Your task to perform on an android device: empty trash in google photos Image 0: 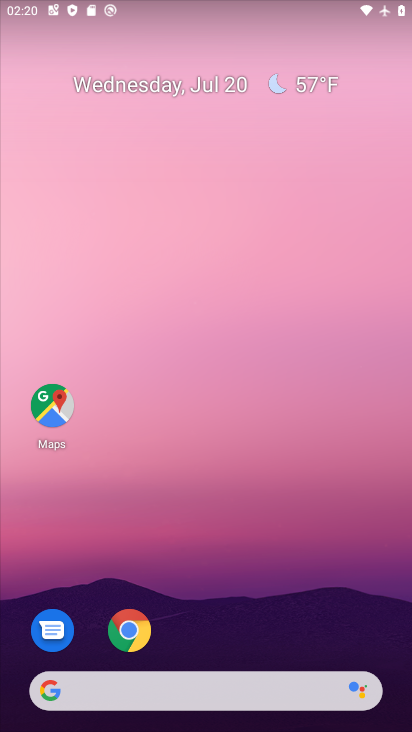
Step 0: drag from (200, 609) to (206, 200)
Your task to perform on an android device: empty trash in google photos Image 1: 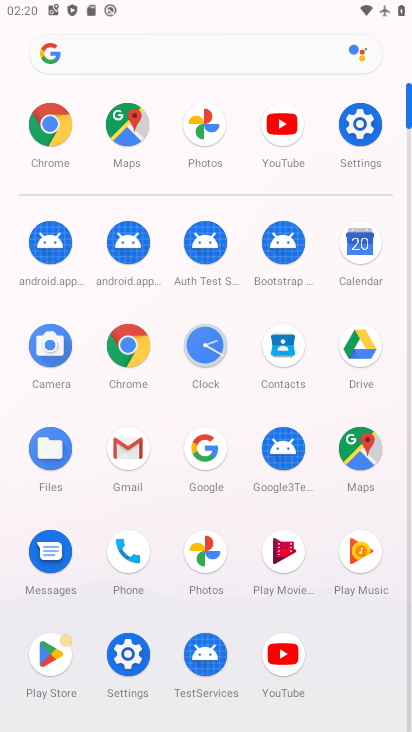
Step 1: click (220, 120)
Your task to perform on an android device: empty trash in google photos Image 2: 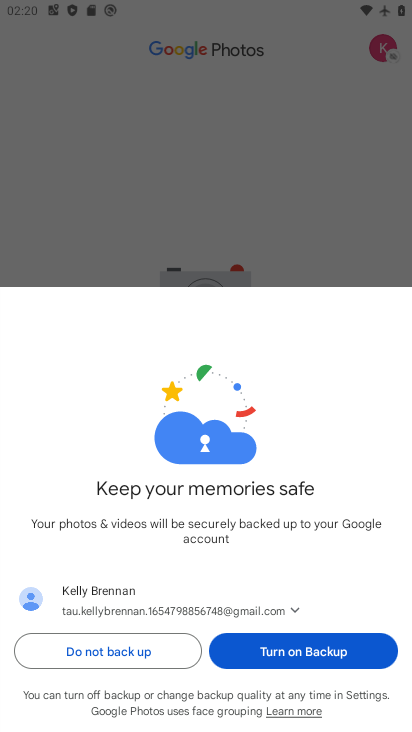
Step 2: click (304, 656)
Your task to perform on an android device: empty trash in google photos Image 3: 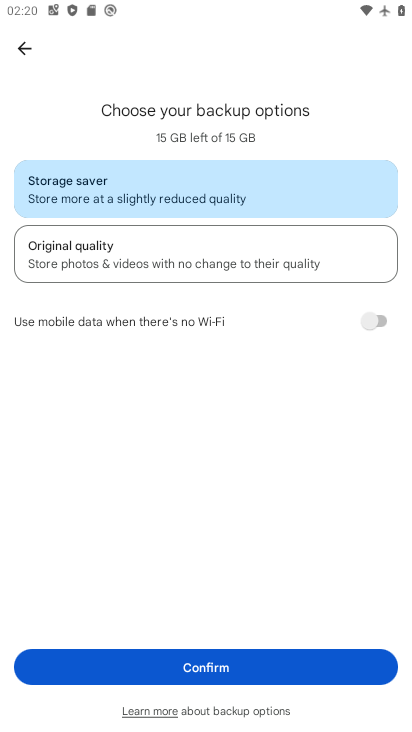
Step 3: click (238, 662)
Your task to perform on an android device: empty trash in google photos Image 4: 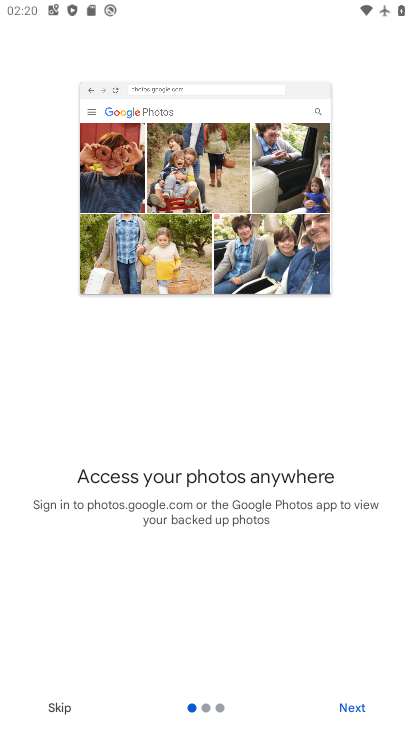
Step 4: click (342, 692)
Your task to perform on an android device: empty trash in google photos Image 5: 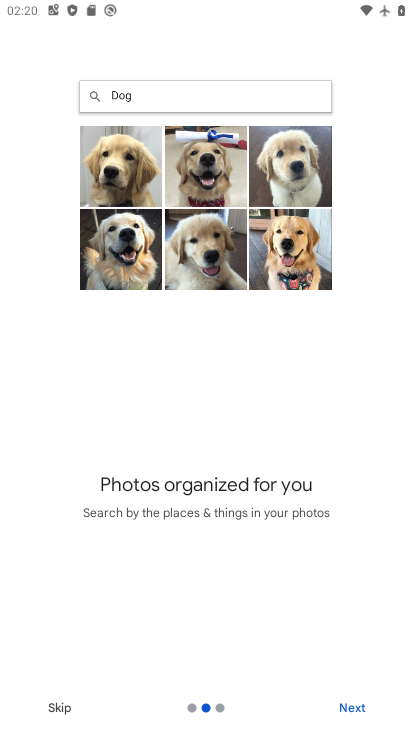
Step 5: click (350, 702)
Your task to perform on an android device: empty trash in google photos Image 6: 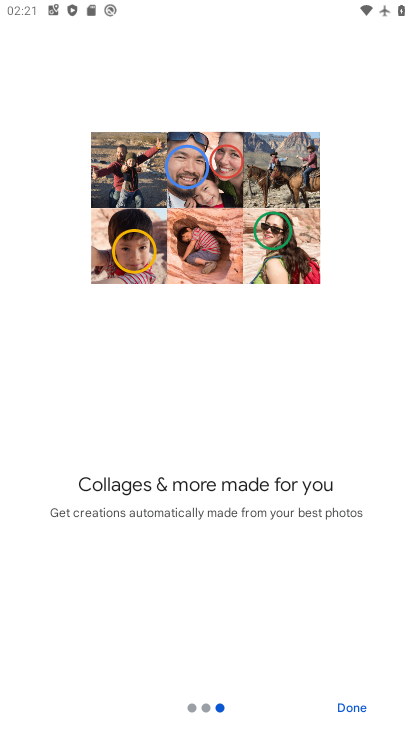
Step 6: click (349, 693)
Your task to perform on an android device: empty trash in google photos Image 7: 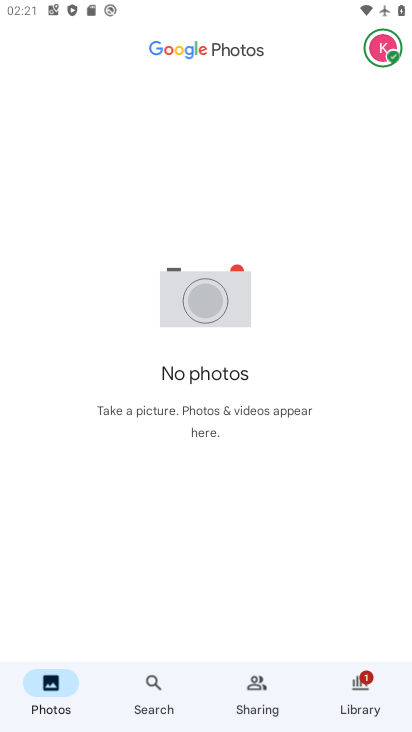
Step 7: click (385, 46)
Your task to perform on an android device: empty trash in google photos Image 8: 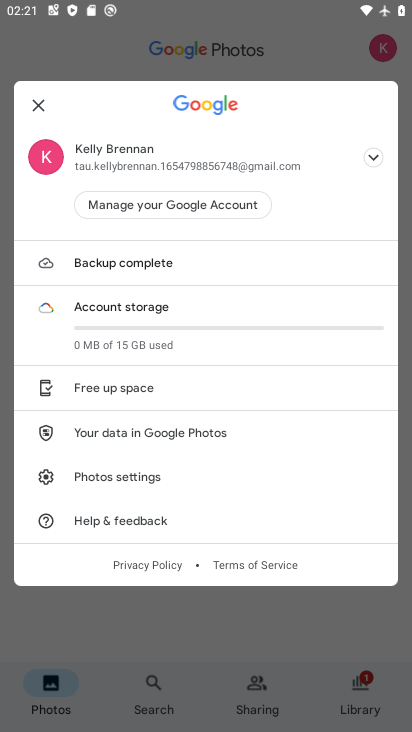
Step 8: click (188, 623)
Your task to perform on an android device: empty trash in google photos Image 9: 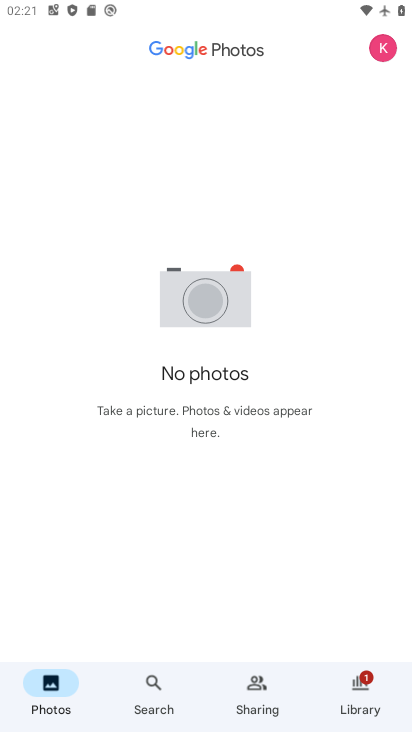
Step 9: click (386, 690)
Your task to perform on an android device: empty trash in google photos Image 10: 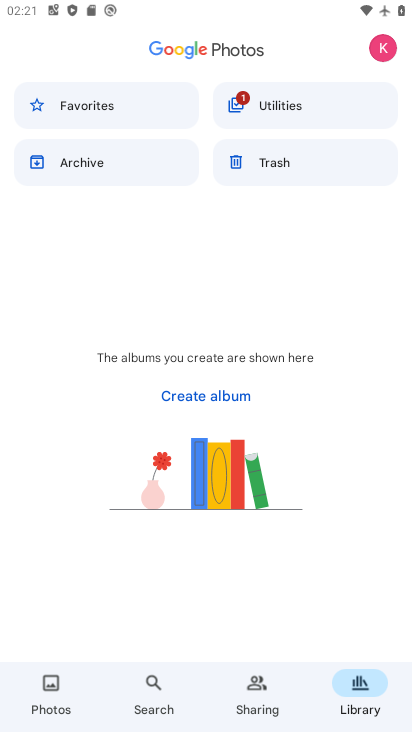
Step 10: click (277, 152)
Your task to perform on an android device: empty trash in google photos Image 11: 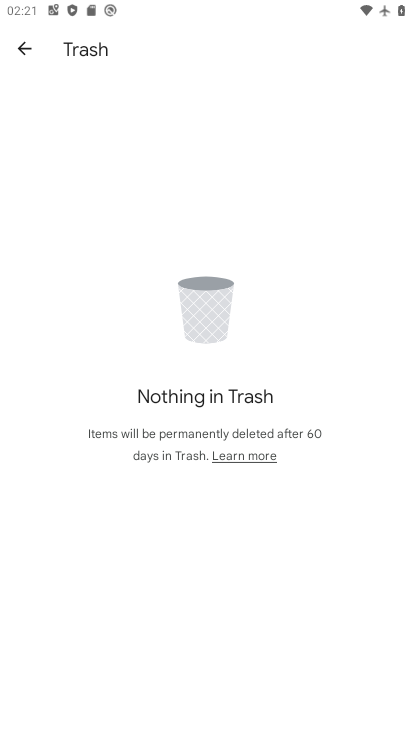
Step 11: task complete